Your task to perform on an android device: toggle notification dots Image 0: 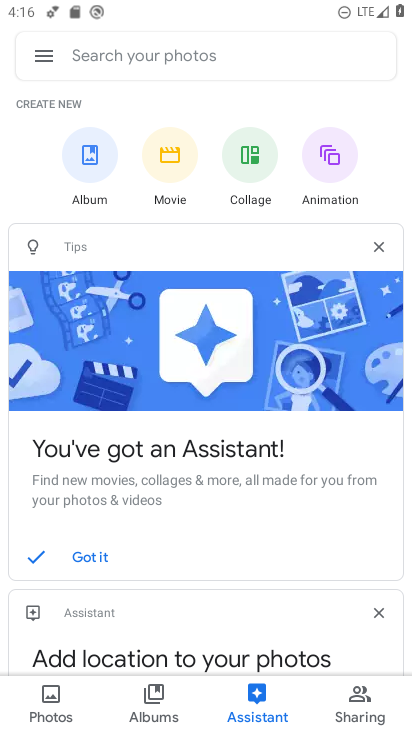
Step 0: press home button
Your task to perform on an android device: toggle notification dots Image 1: 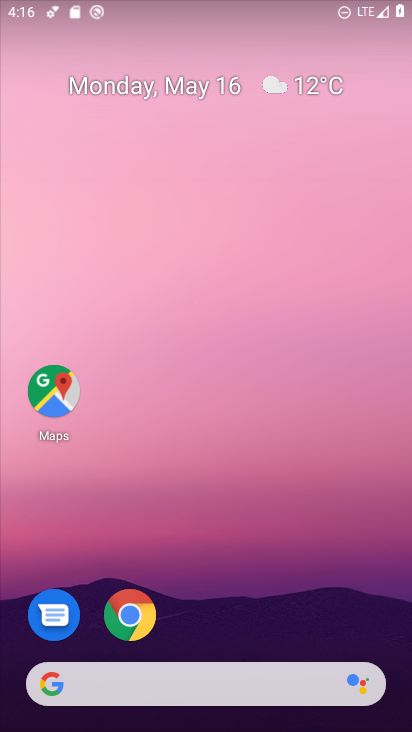
Step 1: drag from (211, 728) to (186, 185)
Your task to perform on an android device: toggle notification dots Image 2: 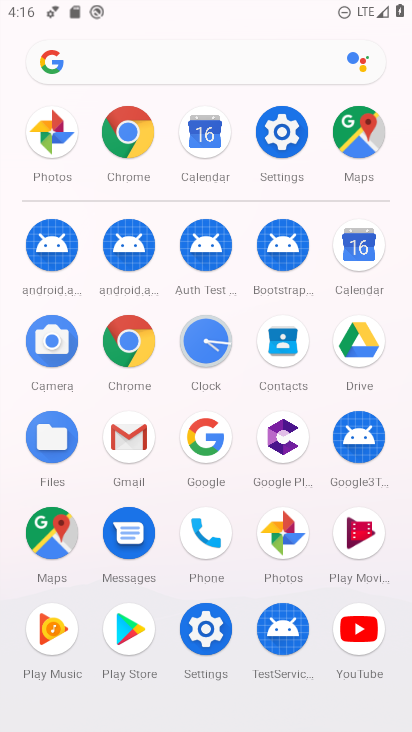
Step 2: click (279, 140)
Your task to perform on an android device: toggle notification dots Image 3: 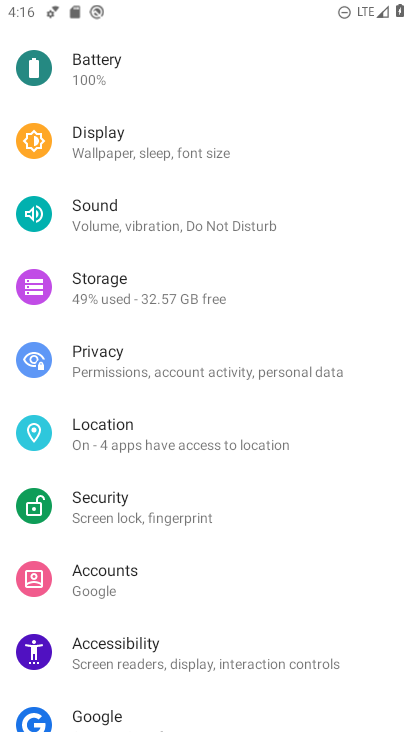
Step 3: drag from (162, 144) to (152, 438)
Your task to perform on an android device: toggle notification dots Image 4: 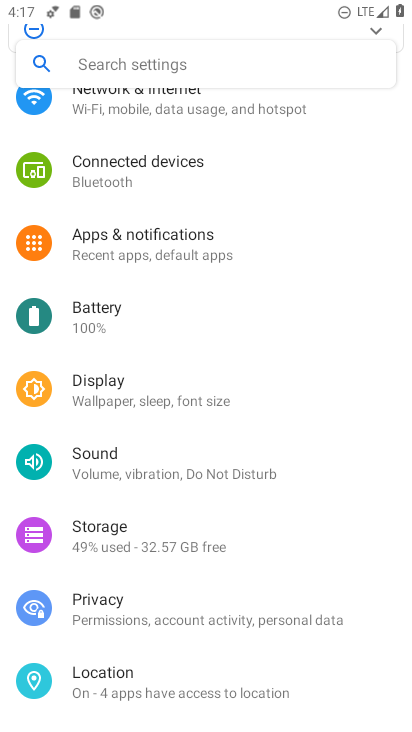
Step 4: click (140, 235)
Your task to perform on an android device: toggle notification dots Image 5: 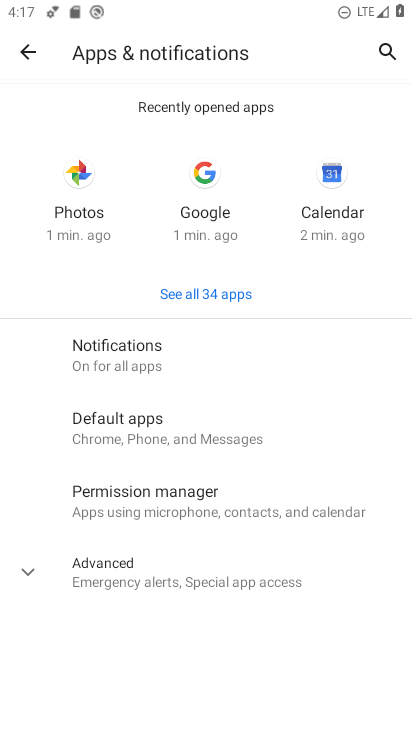
Step 5: click (117, 358)
Your task to perform on an android device: toggle notification dots Image 6: 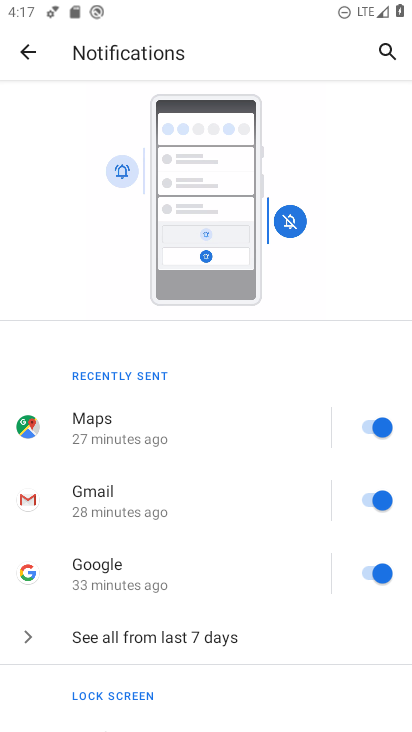
Step 6: drag from (177, 654) to (179, 285)
Your task to perform on an android device: toggle notification dots Image 7: 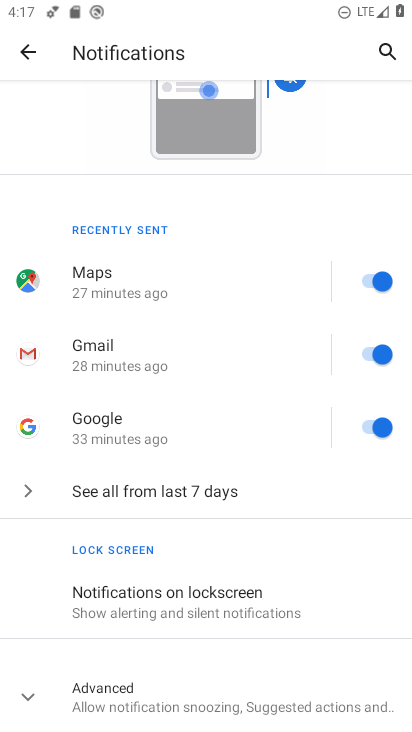
Step 7: click (106, 686)
Your task to perform on an android device: toggle notification dots Image 8: 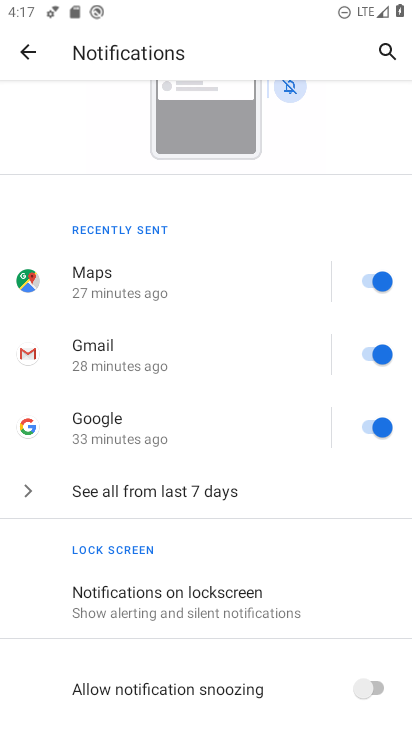
Step 8: drag from (146, 698) to (151, 254)
Your task to perform on an android device: toggle notification dots Image 9: 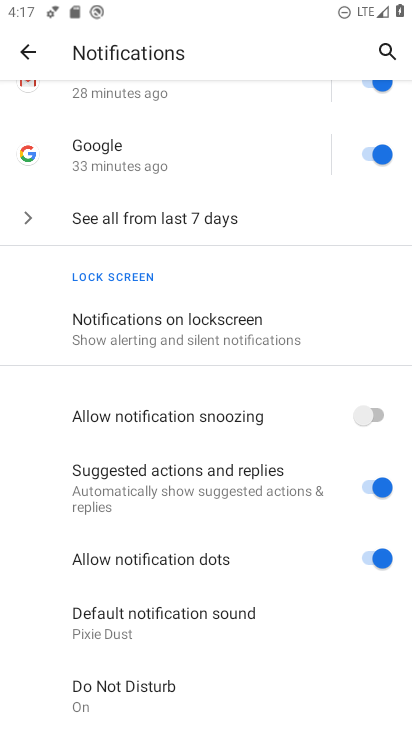
Step 9: click (365, 558)
Your task to perform on an android device: toggle notification dots Image 10: 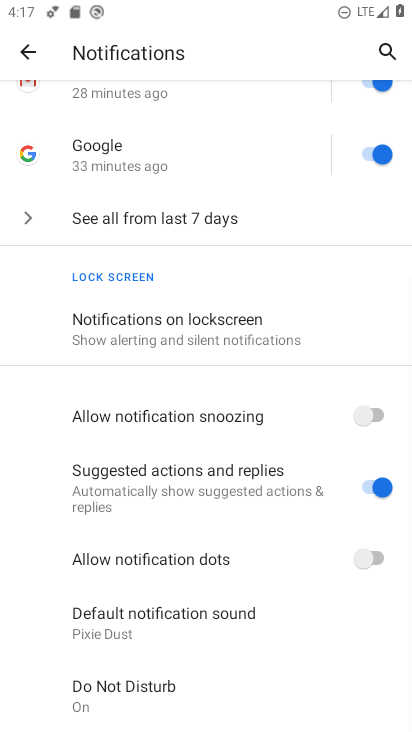
Step 10: task complete